Your task to perform on an android device: see creations saved in the google photos Image 0: 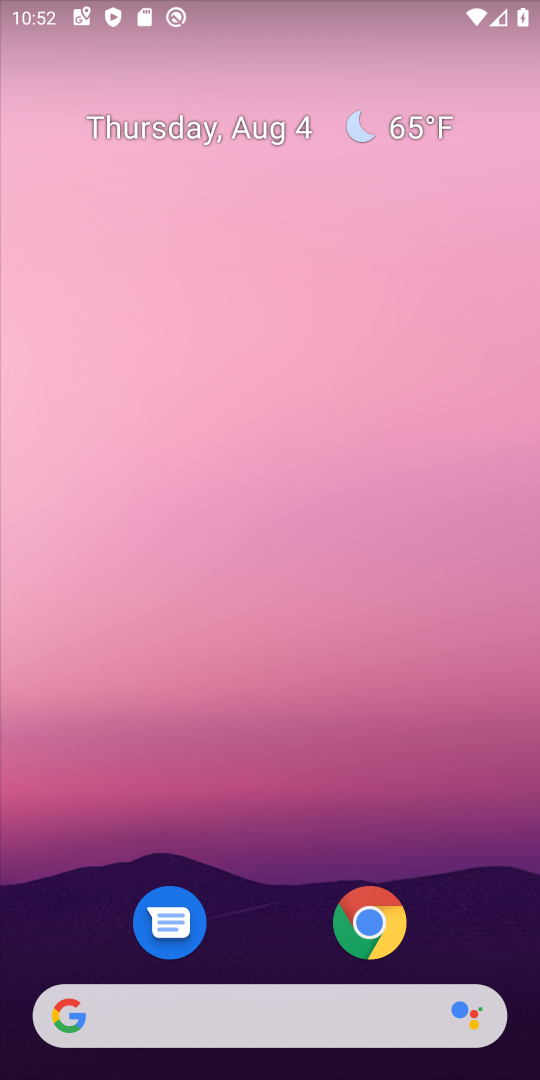
Step 0: drag from (337, 1004) to (207, 78)
Your task to perform on an android device: see creations saved in the google photos Image 1: 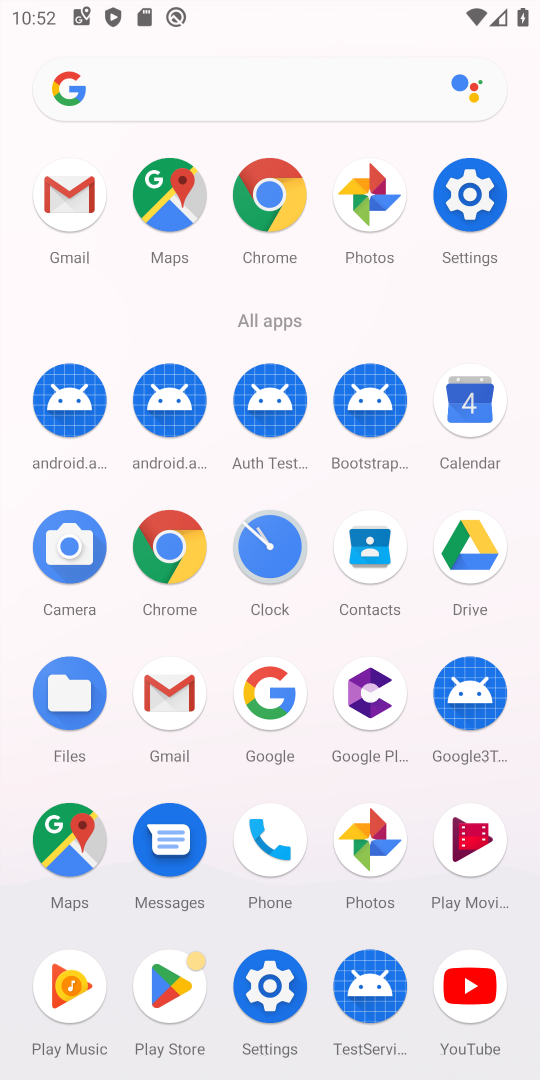
Step 1: click (393, 857)
Your task to perform on an android device: see creations saved in the google photos Image 2: 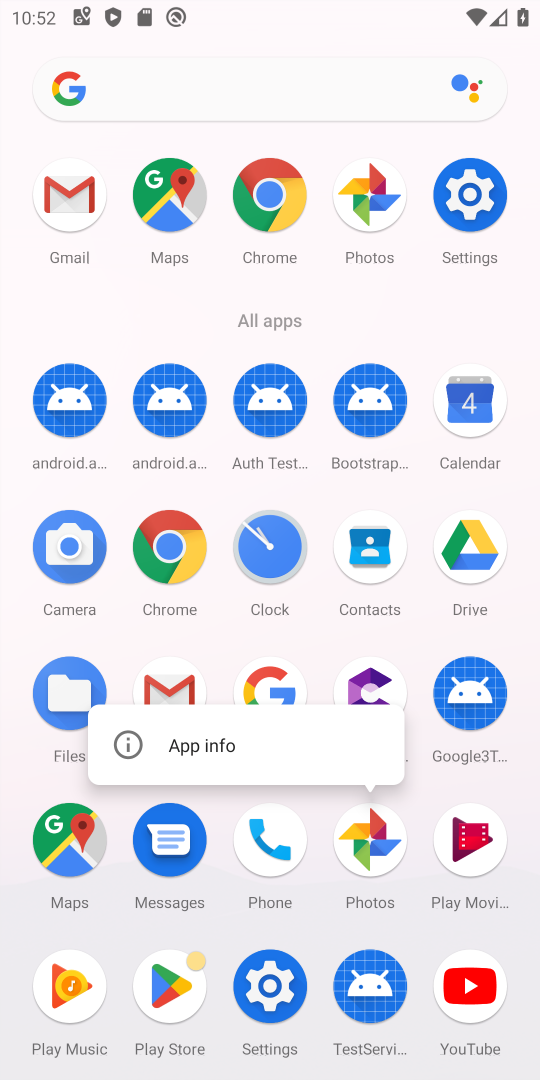
Step 2: click (392, 856)
Your task to perform on an android device: see creations saved in the google photos Image 3: 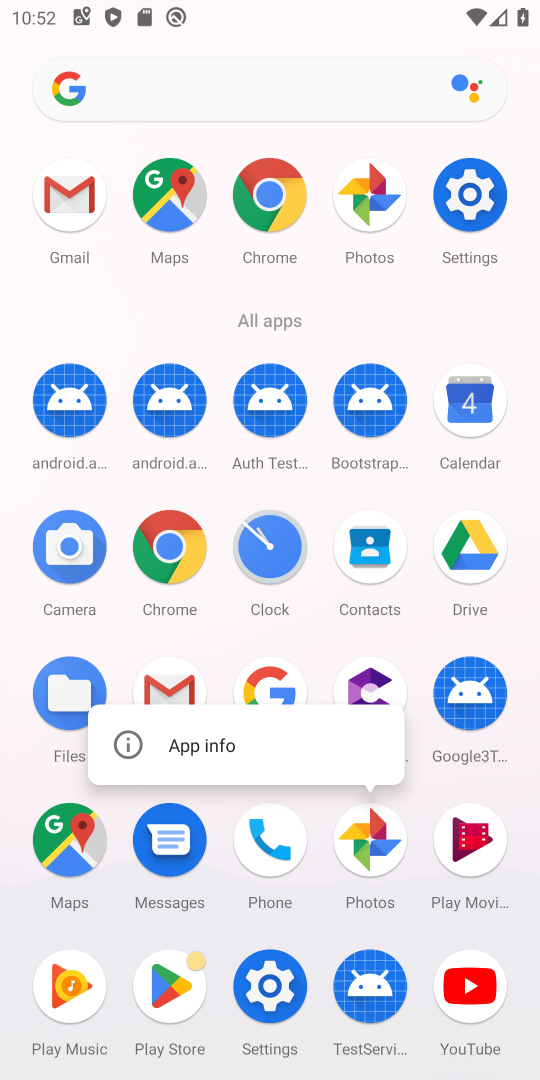
Step 3: click (374, 835)
Your task to perform on an android device: see creations saved in the google photos Image 4: 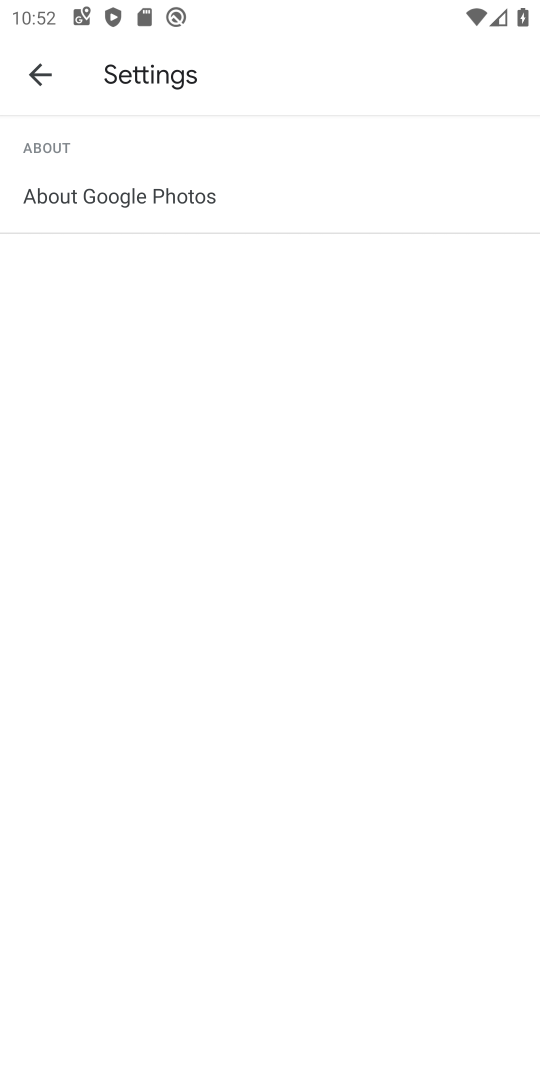
Step 4: click (50, 70)
Your task to perform on an android device: see creations saved in the google photos Image 5: 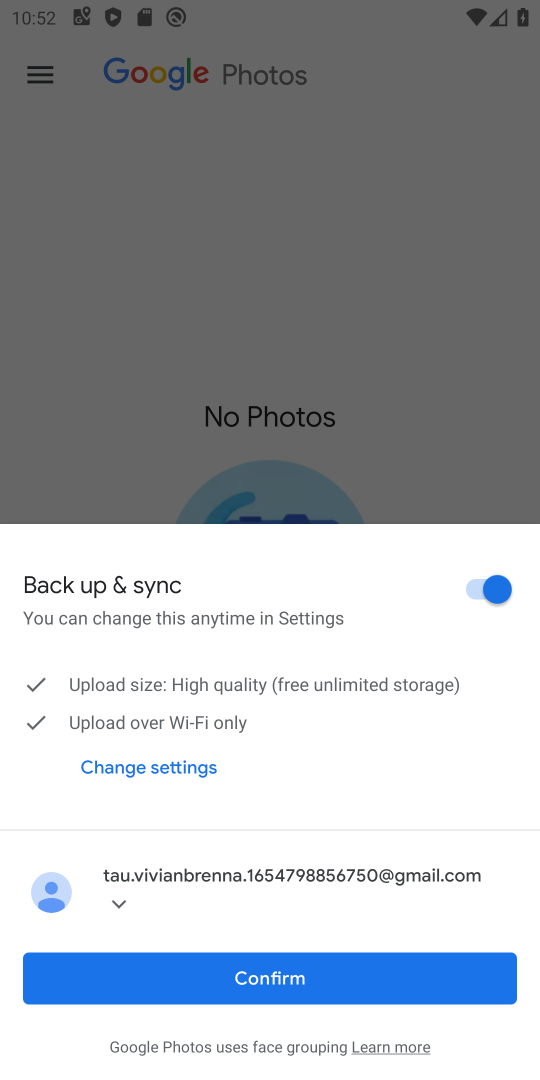
Step 5: click (278, 992)
Your task to perform on an android device: see creations saved in the google photos Image 6: 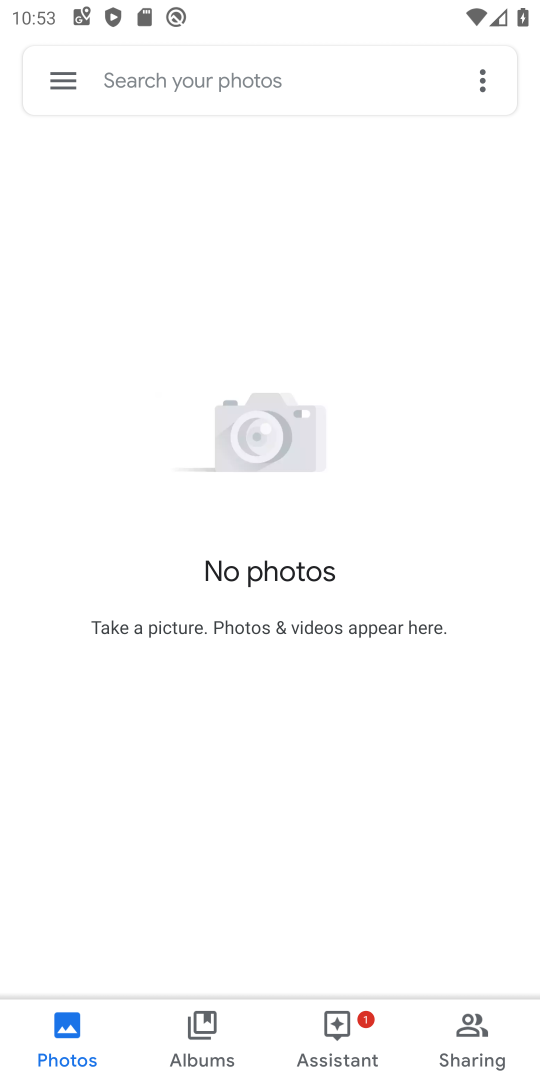
Step 6: click (477, 1048)
Your task to perform on an android device: see creations saved in the google photos Image 7: 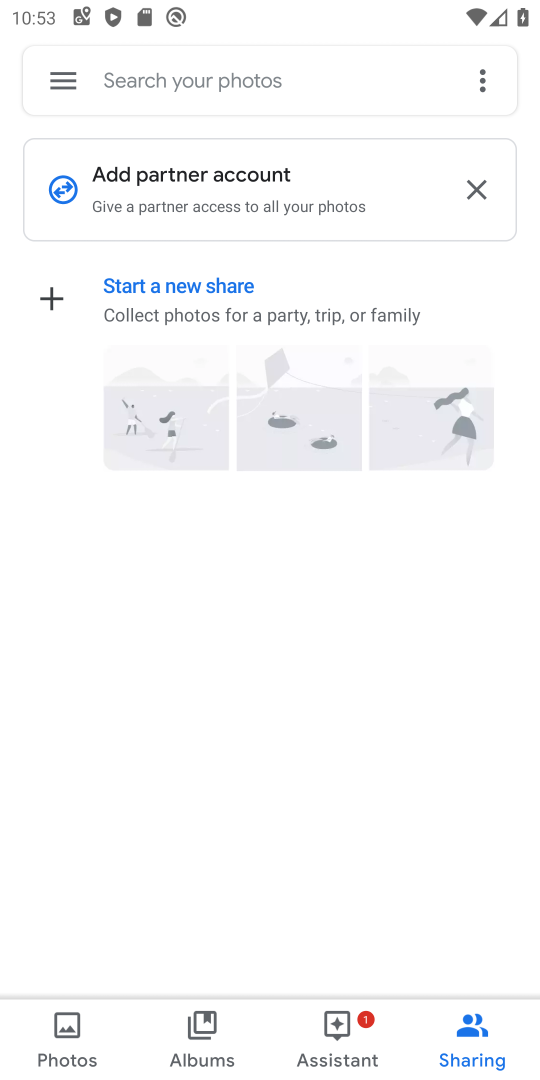
Step 7: task complete